Your task to perform on an android device: Open Amazon Image 0: 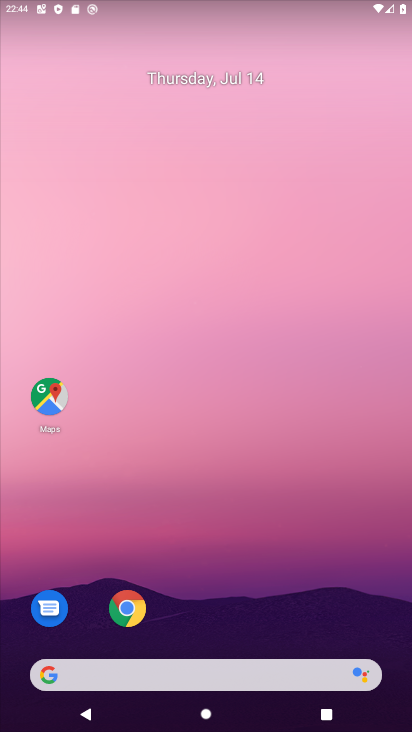
Step 0: click (128, 606)
Your task to perform on an android device: Open Amazon Image 1: 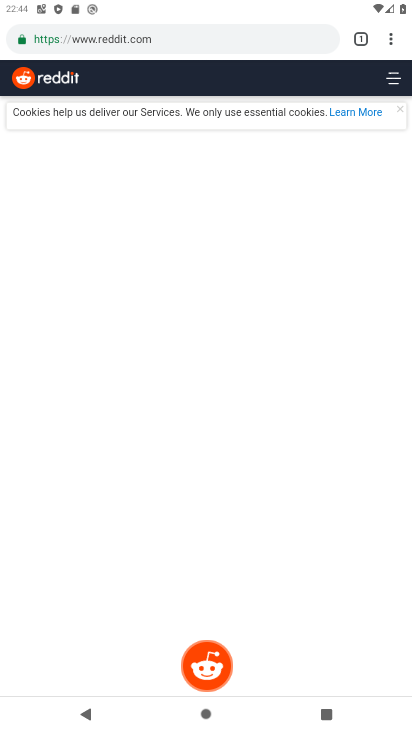
Step 1: click (362, 46)
Your task to perform on an android device: Open Amazon Image 2: 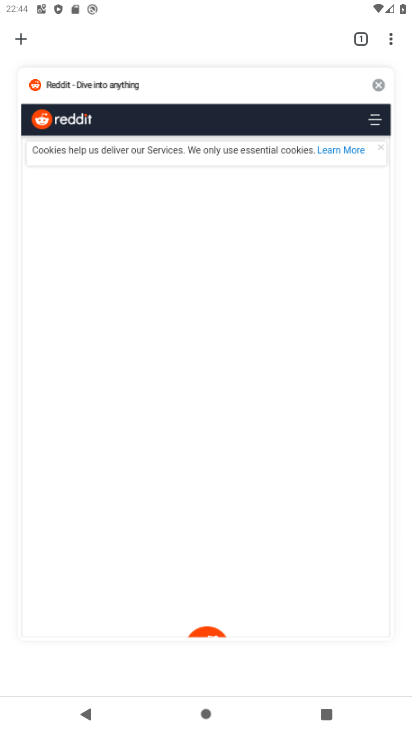
Step 2: click (362, 34)
Your task to perform on an android device: Open Amazon Image 3: 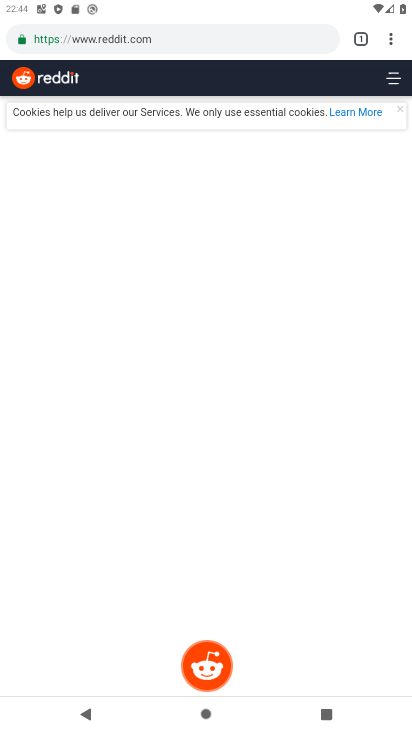
Step 3: click (363, 39)
Your task to perform on an android device: Open Amazon Image 4: 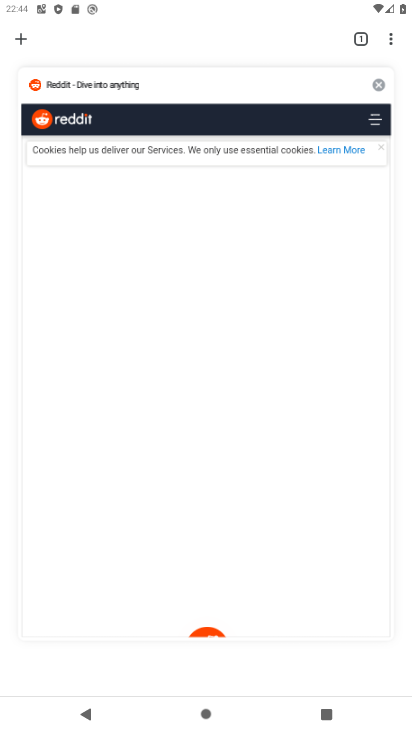
Step 4: click (381, 90)
Your task to perform on an android device: Open Amazon Image 5: 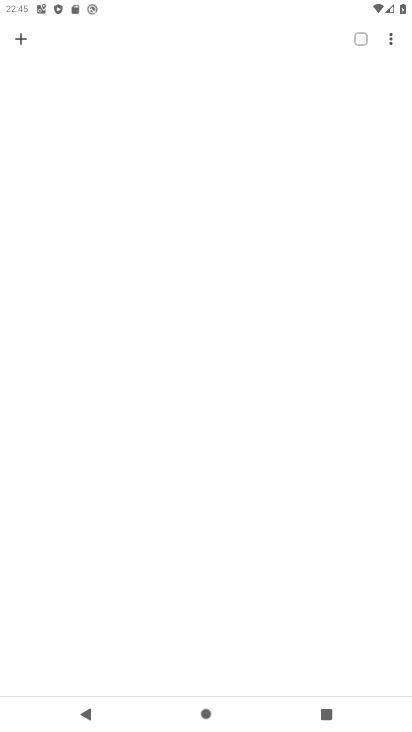
Step 5: click (20, 37)
Your task to perform on an android device: Open Amazon Image 6: 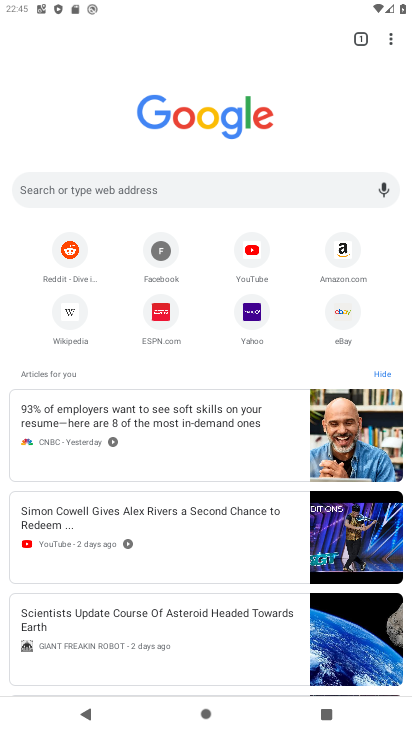
Step 6: click (336, 258)
Your task to perform on an android device: Open Amazon Image 7: 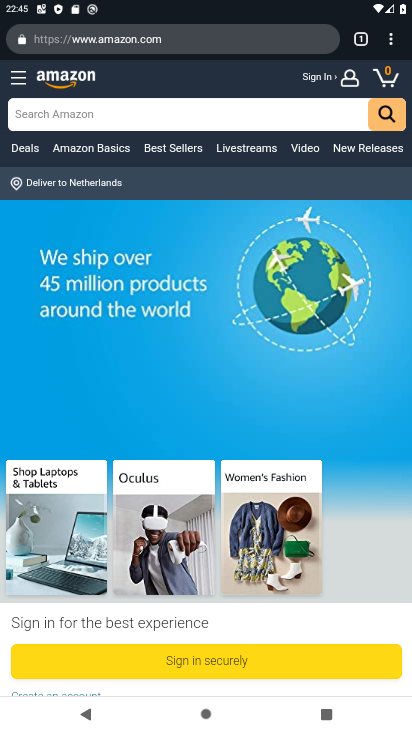
Step 7: task complete